Your task to perform on an android device: find which apps use the phone's location Image 0: 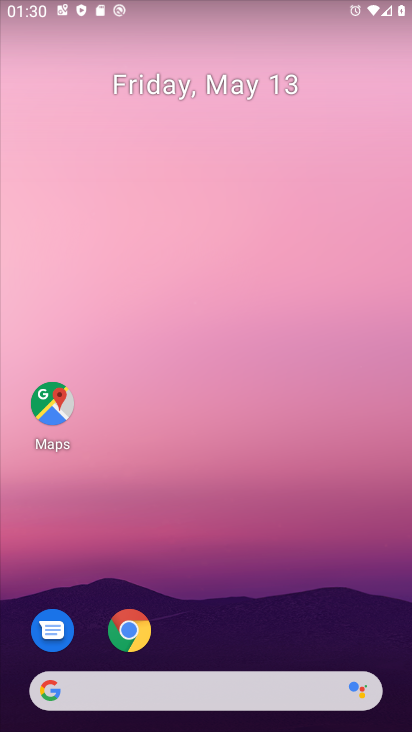
Step 0: drag from (268, 702) to (221, 273)
Your task to perform on an android device: find which apps use the phone's location Image 1: 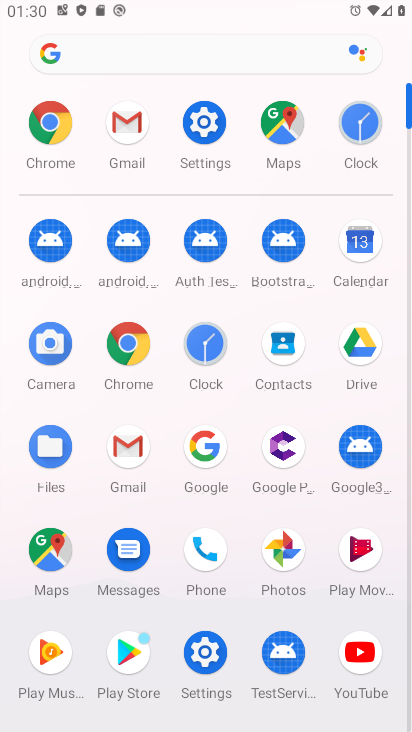
Step 1: click (206, 656)
Your task to perform on an android device: find which apps use the phone's location Image 2: 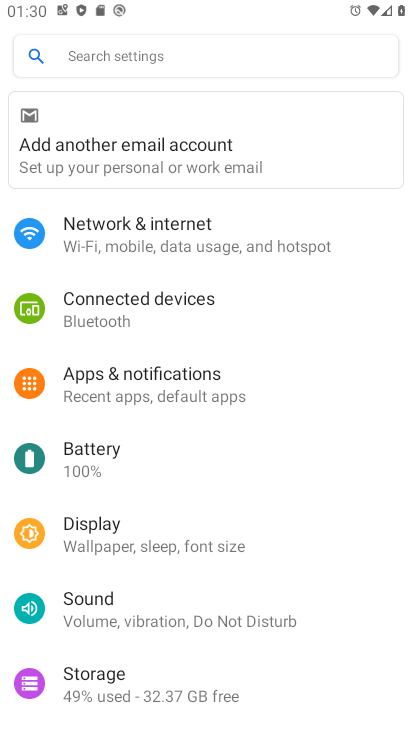
Step 2: click (146, 69)
Your task to perform on an android device: find which apps use the phone's location Image 3: 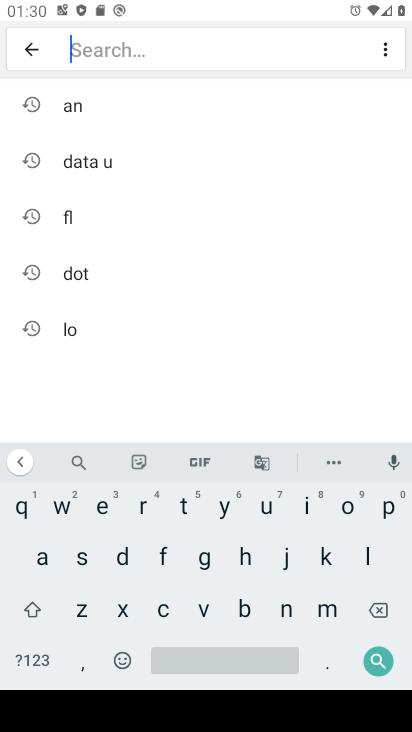
Step 3: click (122, 320)
Your task to perform on an android device: find which apps use the phone's location Image 4: 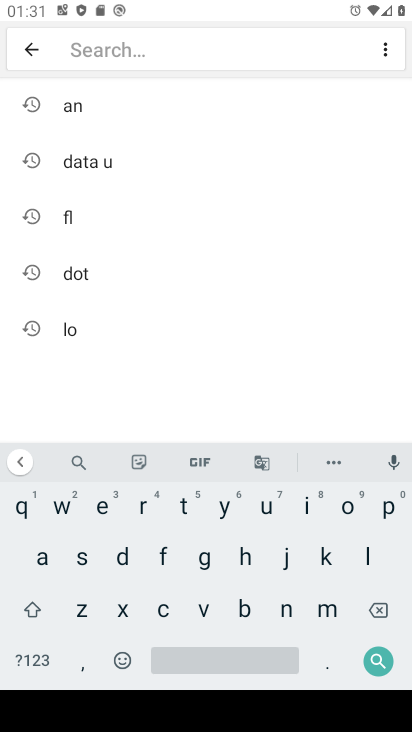
Step 4: click (91, 332)
Your task to perform on an android device: find which apps use the phone's location Image 5: 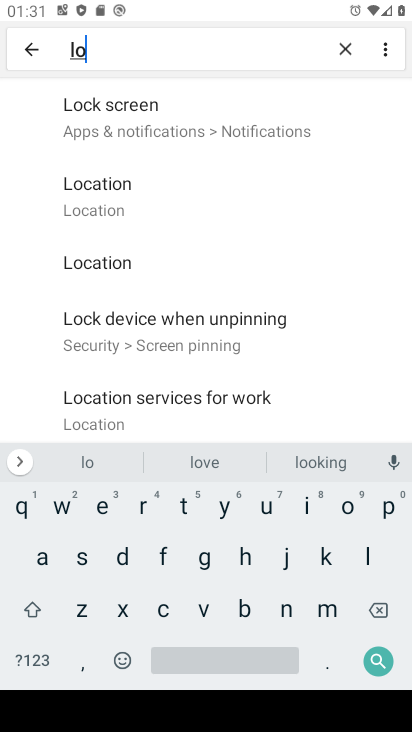
Step 5: click (108, 206)
Your task to perform on an android device: find which apps use the phone's location Image 6: 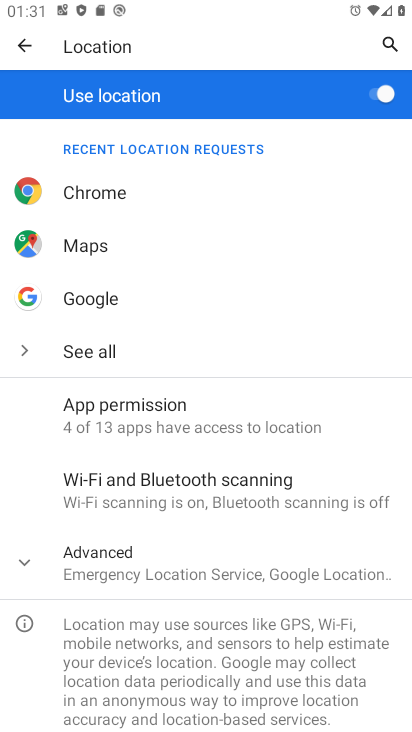
Step 6: task complete